Your task to perform on an android device: Go to location settings Image 0: 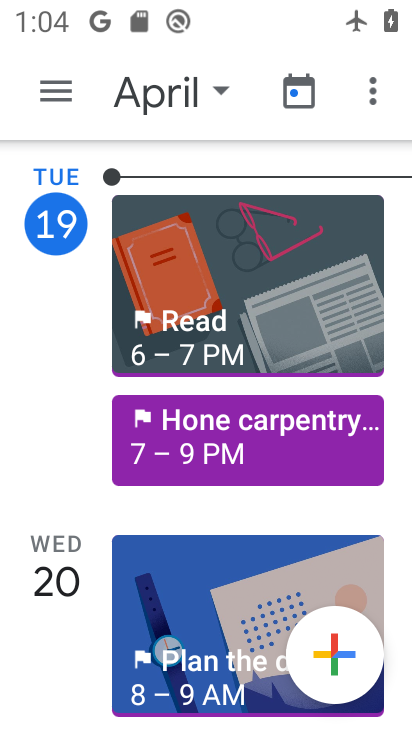
Step 0: press home button
Your task to perform on an android device: Go to location settings Image 1: 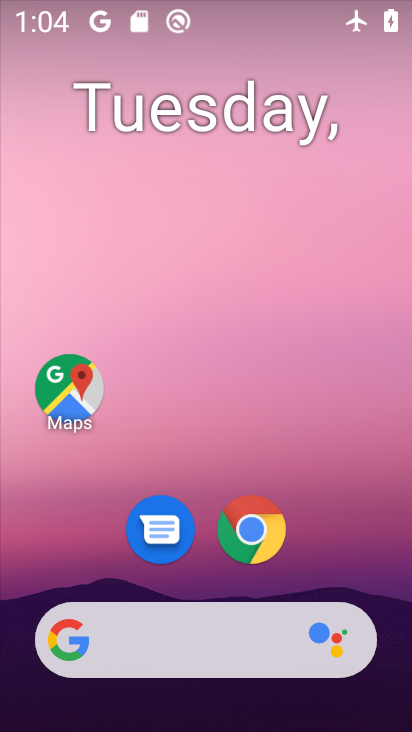
Step 1: drag from (392, 416) to (392, 181)
Your task to perform on an android device: Go to location settings Image 2: 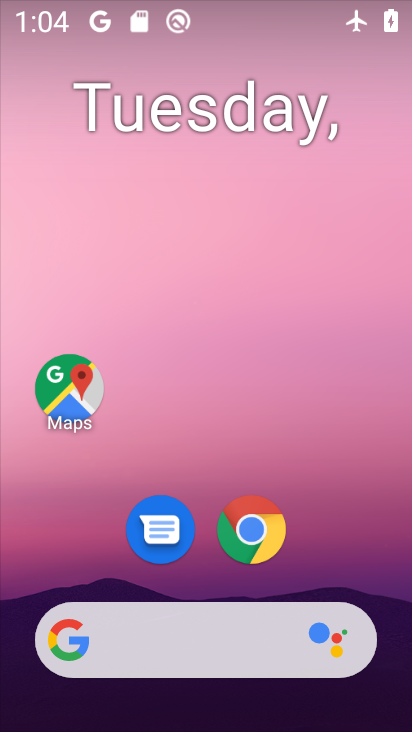
Step 2: drag from (375, 449) to (367, 57)
Your task to perform on an android device: Go to location settings Image 3: 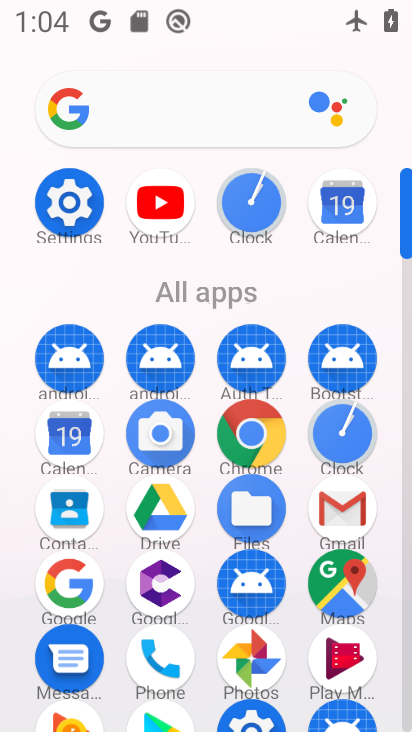
Step 3: click (58, 189)
Your task to perform on an android device: Go to location settings Image 4: 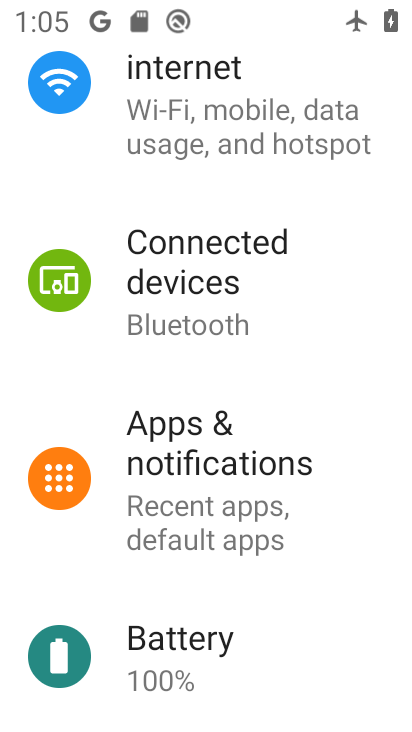
Step 4: drag from (337, 559) to (374, 212)
Your task to perform on an android device: Go to location settings Image 5: 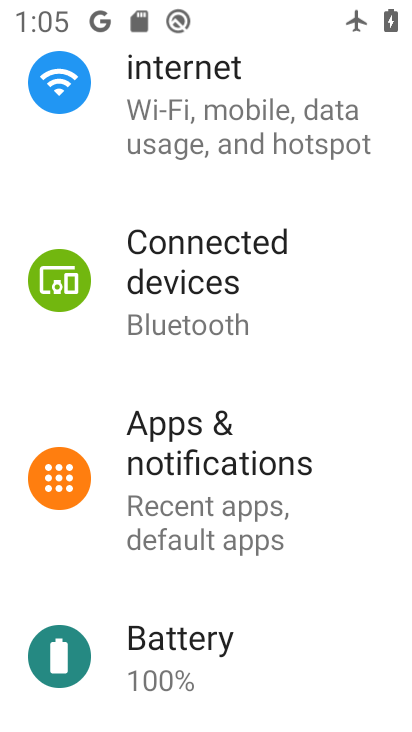
Step 5: drag from (329, 482) to (331, 274)
Your task to perform on an android device: Go to location settings Image 6: 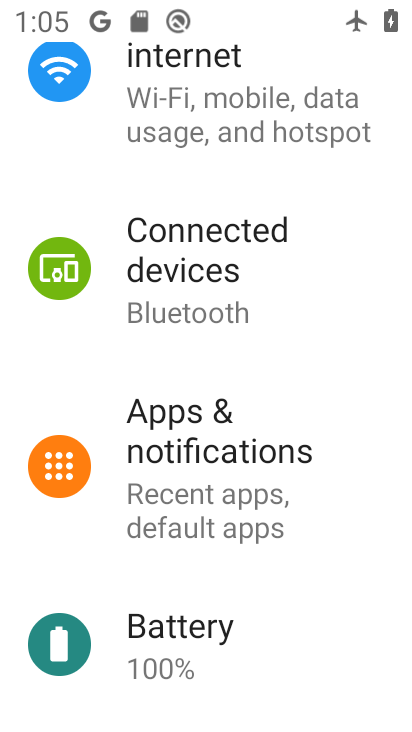
Step 6: drag from (342, 653) to (360, 209)
Your task to perform on an android device: Go to location settings Image 7: 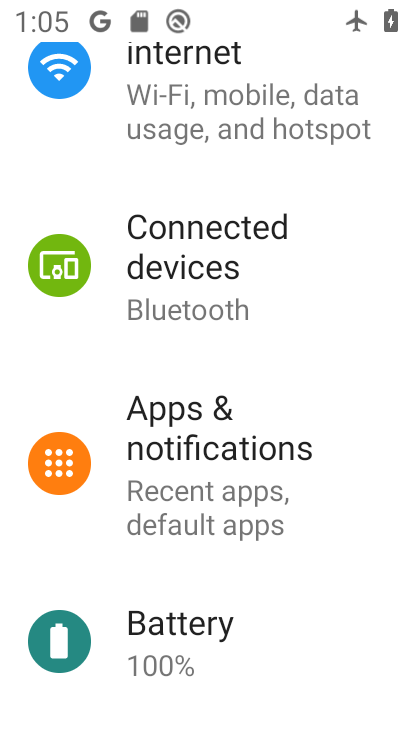
Step 7: drag from (358, 657) to (347, 272)
Your task to perform on an android device: Go to location settings Image 8: 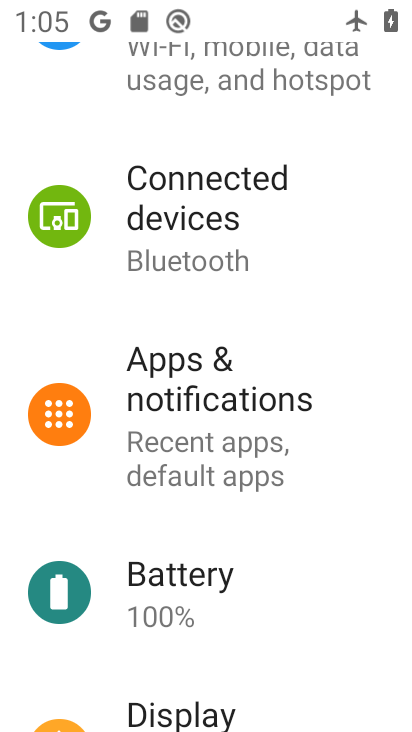
Step 8: drag from (346, 476) to (360, 235)
Your task to perform on an android device: Go to location settings Image 9: 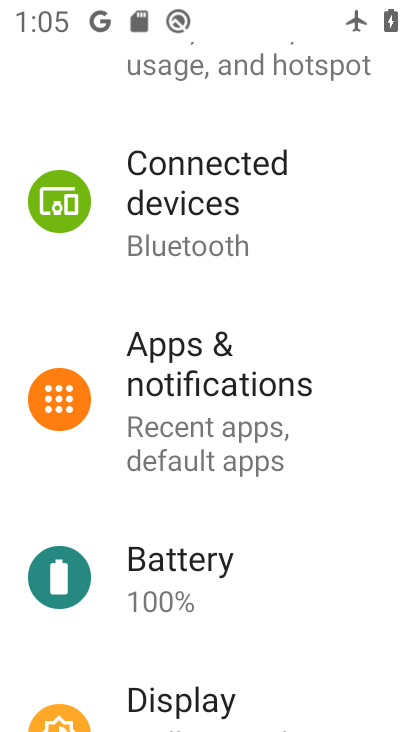
Step 9: drag from (350, 655) to (361, 244)
Your task to perform on an android device: Go to location settings Image 10: 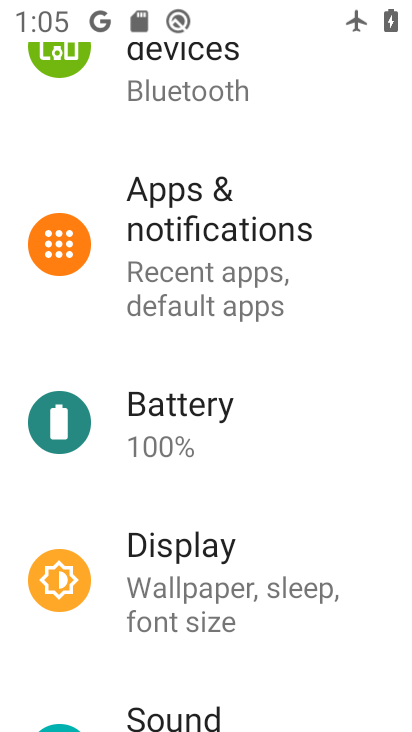
Step 10: drag from (323, 680) to (321, 237)
Your task to perform on an android device: Go to location settings Image 11: 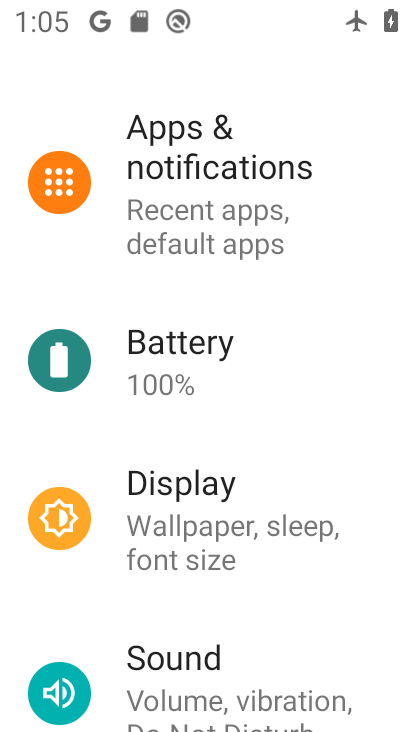
Step 11: click (344, 283)
Your task to perform on an android device: Go to location settings Image 12: 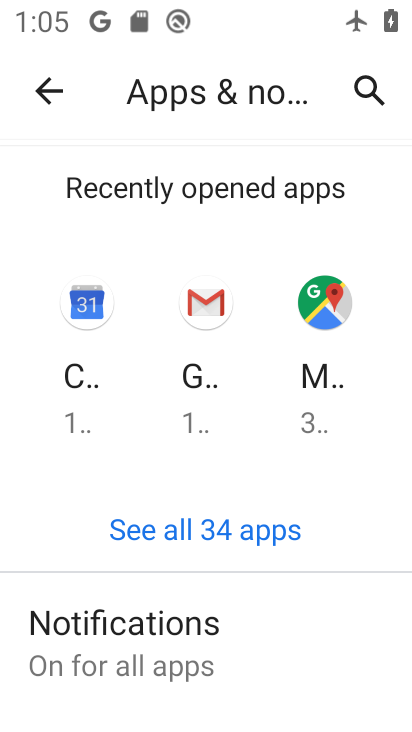
Step 12: click (35, 89)
Your task to perform on an android device: Go to location settings Image 13: 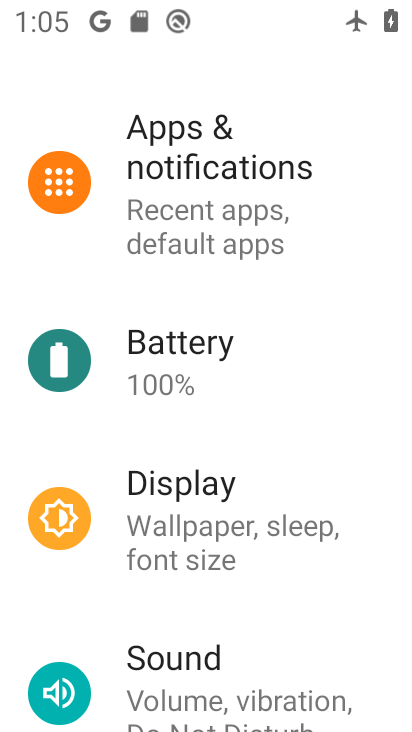
Step 13: click (410, 161)
Your task to perform on an android device: Go to location settings Image 14: 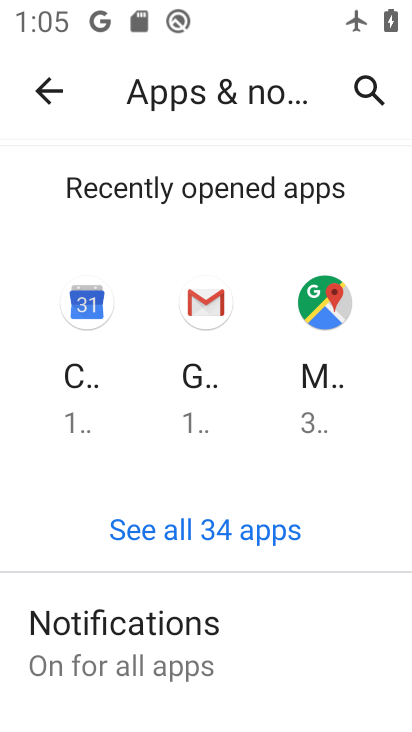
Step 14: click (44, 89)
Your task to perform on an android device: Go to location settings Image 15: 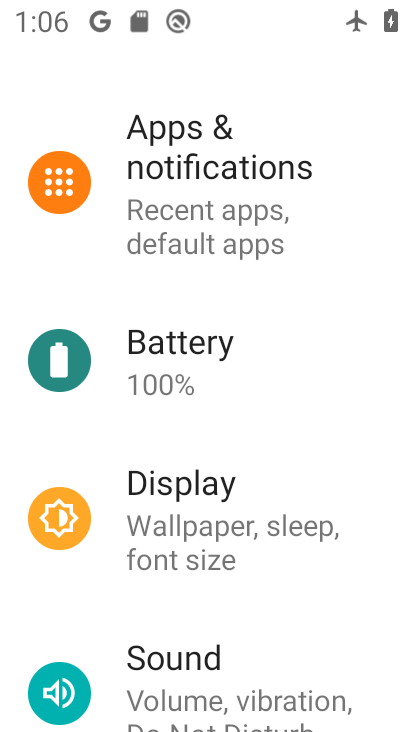
Step 15: drag from (305, 581) to (296, 92)
Your task to perform on an android device: Go to location settings Image 16: 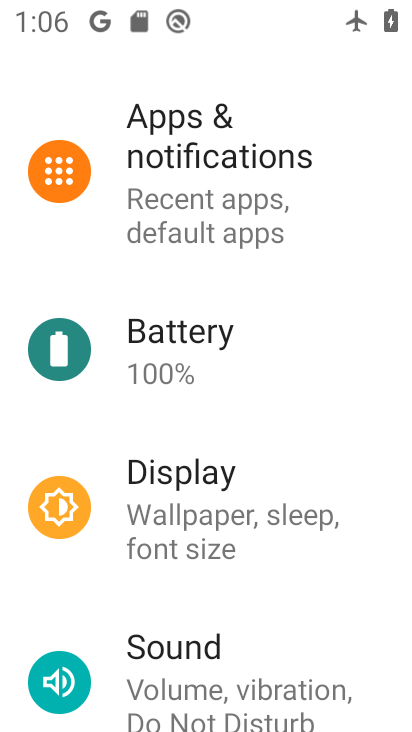
Step 16: drag from (354, 353) to (346, 249)
Your task to perform on an android device: Go to location settings Image 17: 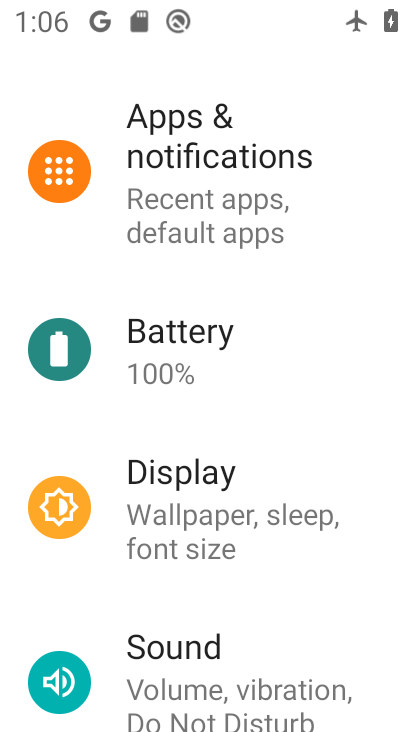
Step 17: drag from (322, 426) to (277, 163)
Your task to perform on an android device: Go to location settings Image 18: 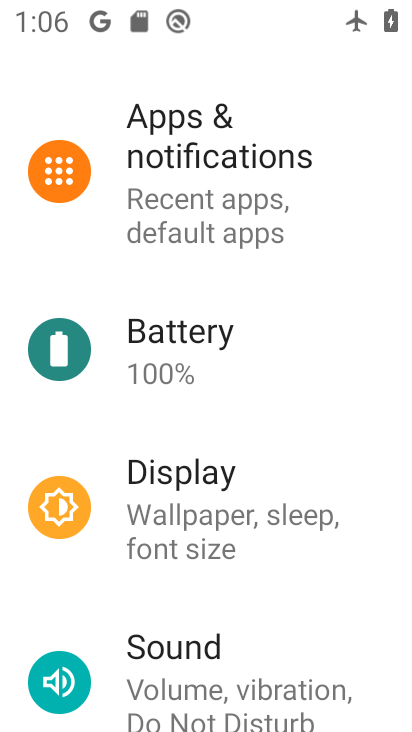
Step 18: drag from (364, 684) to (323, 146)
Your task to perform on an android device: Go to location settings Image 19: 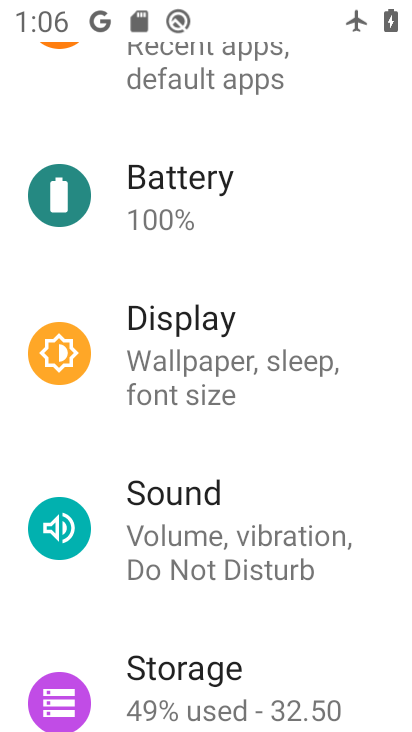
Step 19: drag from (355, 535) to (335, 150)
Your task to perform on an android device: Go to location settings Image 20: 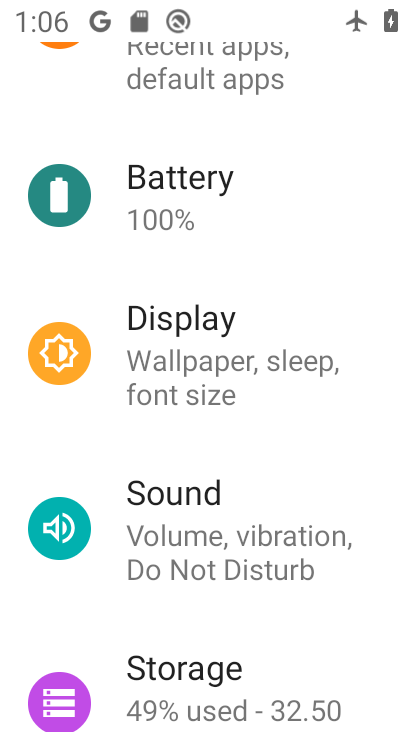
Step 20: drag from (313, 526) to (271, 174)
Your task to perform on an android device: Go to location settings Image 21: 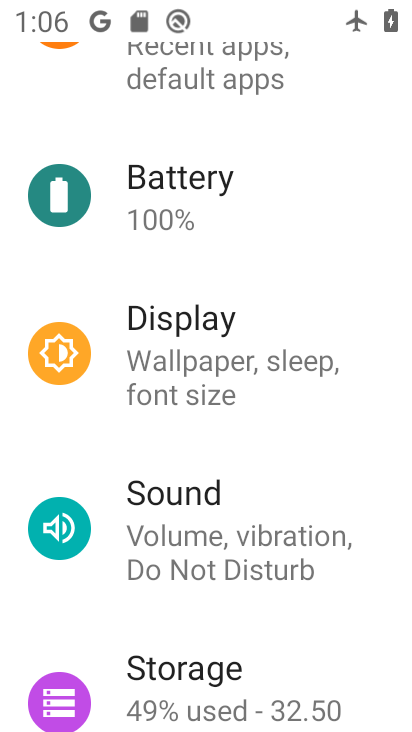
Step 21: drag from (345, 658) to (353, 84)
Your task to perform on an android device: Go to location settings Image 22: 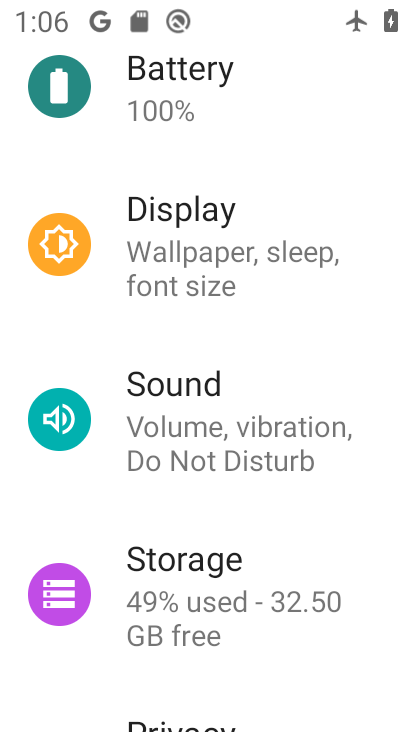
Step 22: drag from (358, 648) to (320, 172)
Your task to perform on an android device: Go to location settings Image 23: 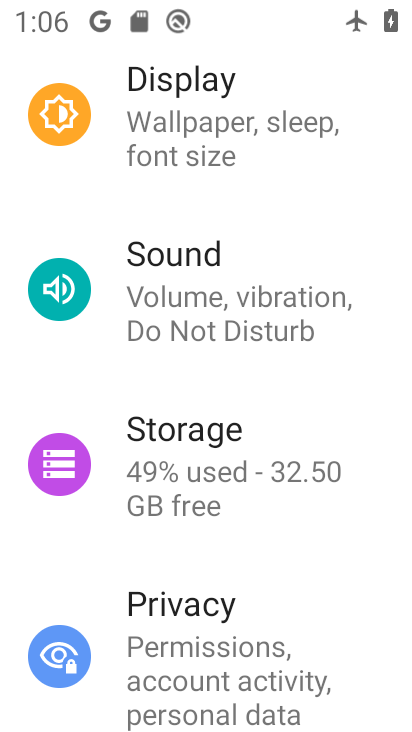
Step 23: drag from (333, 678) to (266, 202)
Your task to perform on an android device: Go to location settings Image 24: 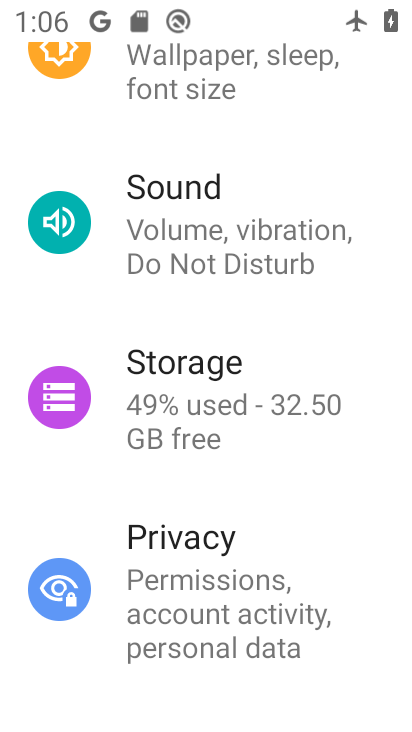
Step 24: drag from (347, 641) to (341, 195)
Your task to perform on an android device: Go to location settings Image 25: 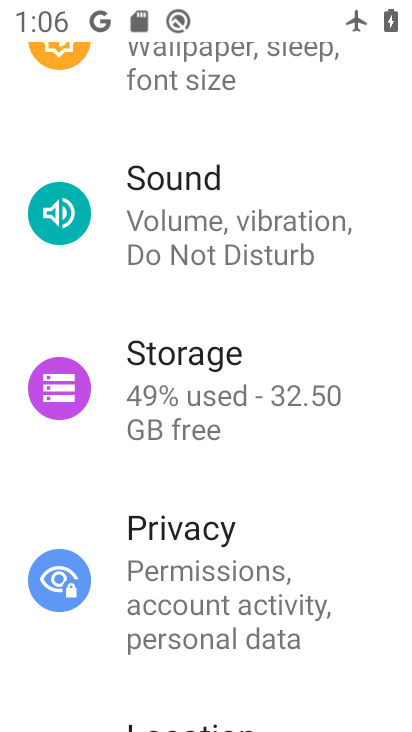
Step 25: drag from (341, 604) to (346, 168)
Your task to perform on an android device: Go to location settings Image 26: 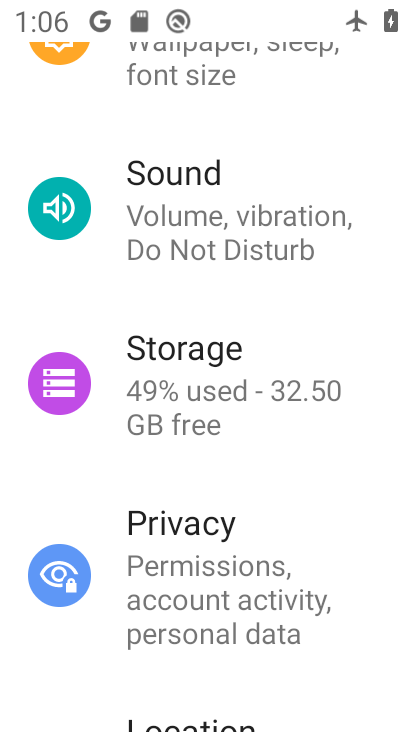
Step 26: drag from (353, 653) to (344, 235)
Your task to perform on an android device: Go to location settings Image 27: 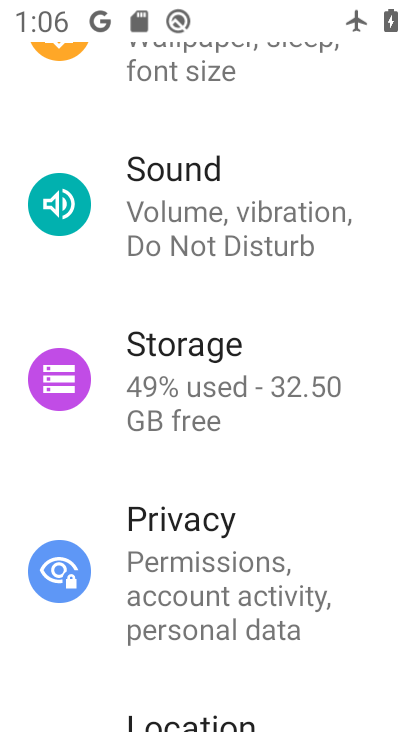
Step 27: drag from (308, 663) to (293, 228)
Your task to perform on an android device: Go to location settings Image 28: 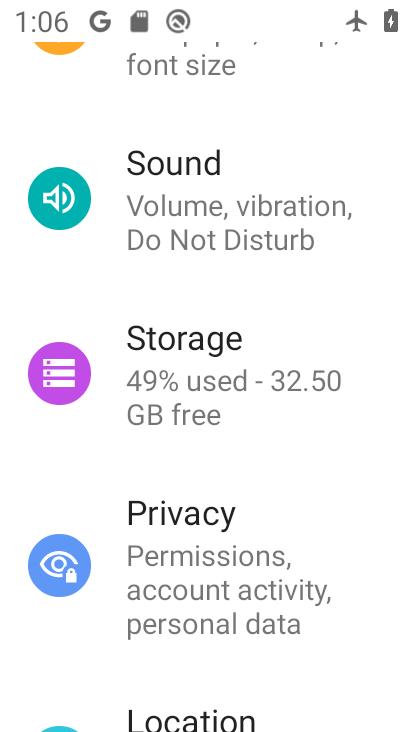
Step 28: click (197, 718)
Your task to perform on an android device: Go to location settings Image 29: 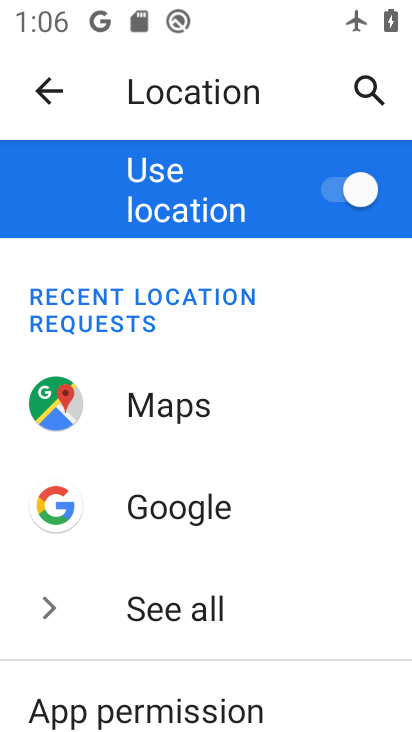
Step 29: drag from (358, 667) to (242, 252)
Your task to perform on an android device: Go to location settings Image 30: 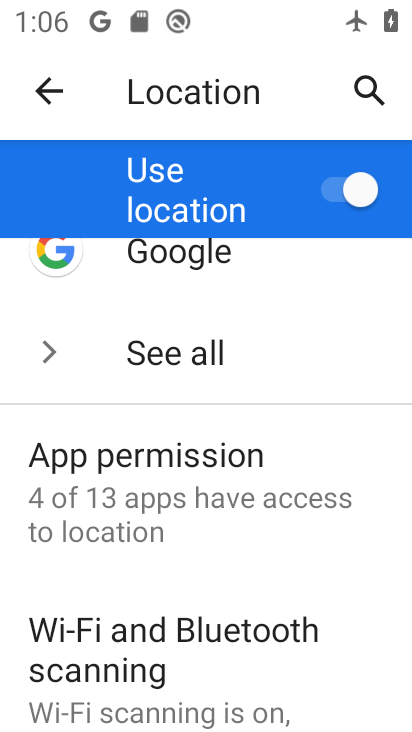
Step 30: drag from (333, 634) to (313, 377)
Your task to perform on an android device: Go to location settings Image 31: 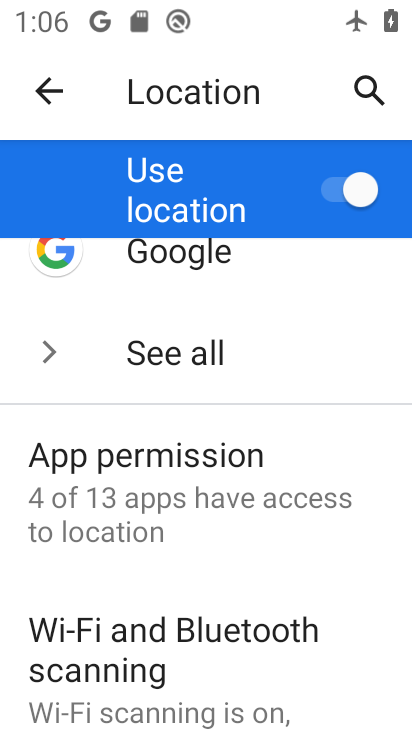
Step 31: drag from (393, 661) to (335, 267)
Your task to perform on an android device: Go to location settings Image 32: 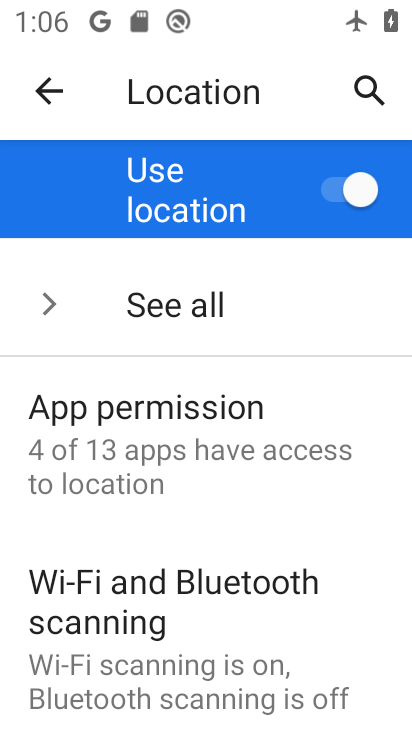
Step 32: drag from (360, 655) to (331, 316)
Your task to perform on an android device: Go to location settings Image 33: 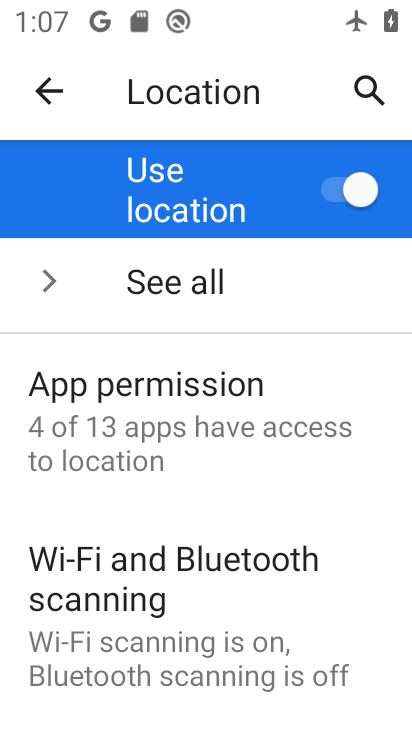
Step 33: drag from (365, 620) to (348, 372)
Your task to perform on an android device: Go to location settings Image 34: 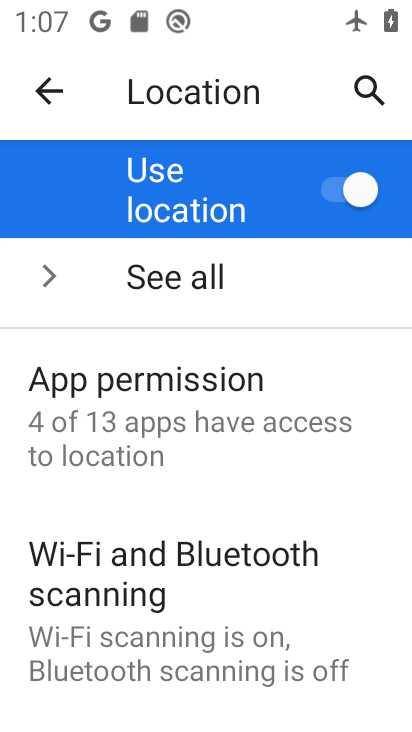
Step 34: drag from (342, 574) to (328, 322)
Your task to perform on an android device: Go to location settings Image 35: 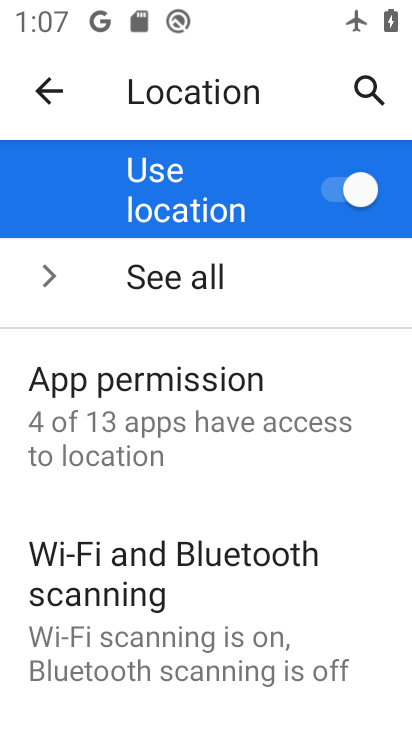
Step 35: drag from (313, 323) to (299, 281)
Your task to perform on an android device: Go to location settings Image 36: 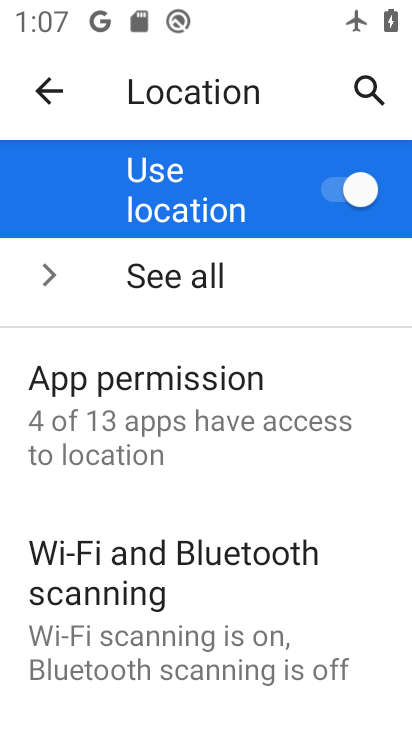
Step 36: drag from (378, 607) to (327, 280)
Your task to perform on an android device: Go to location settings Image 37: 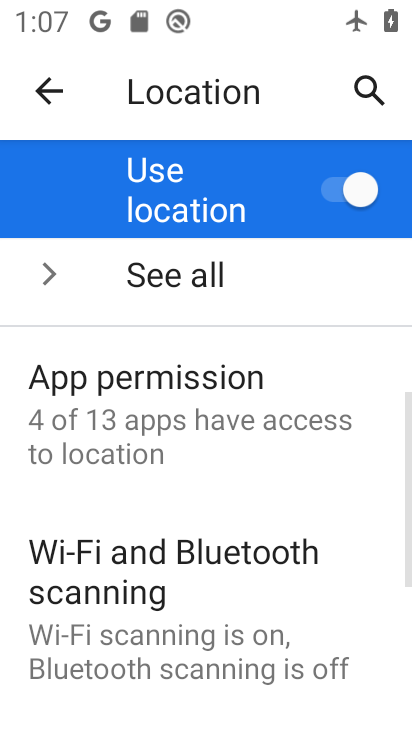
Step 37: drag from (336, 514) to (290, 320)
Your task to perform on an android device: Go to location settings Image 38: 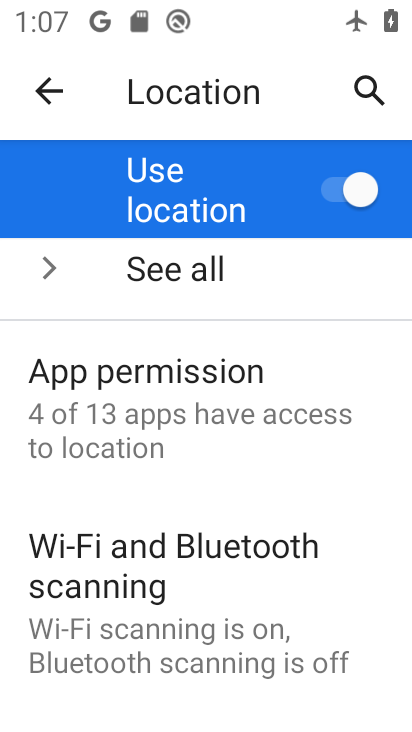
Step 38: drag from (377, 645) to (338, 279)
Your task to perform on an android device: Go to location settings Image 39: 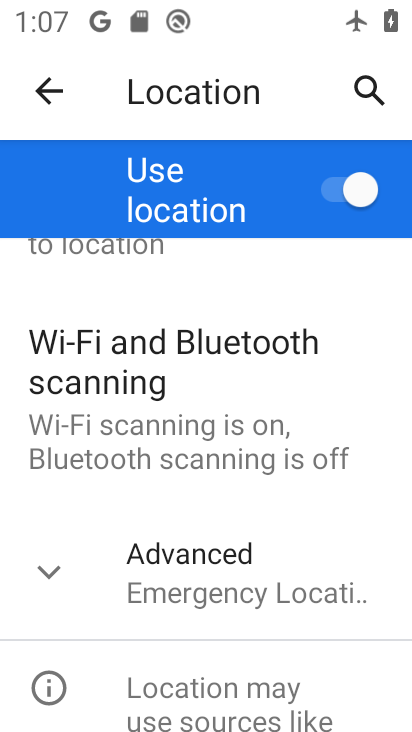
Step 39: drag from (367, 635) to (321, 308)
Your task to perform on an android device: Go to location settings Image 40: 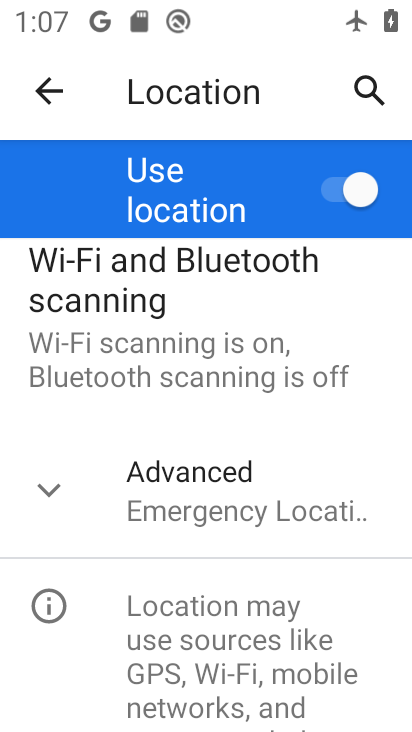
Step 40: click (55, 501)
Your task to perform on an android device: Go to location settings Image 41: 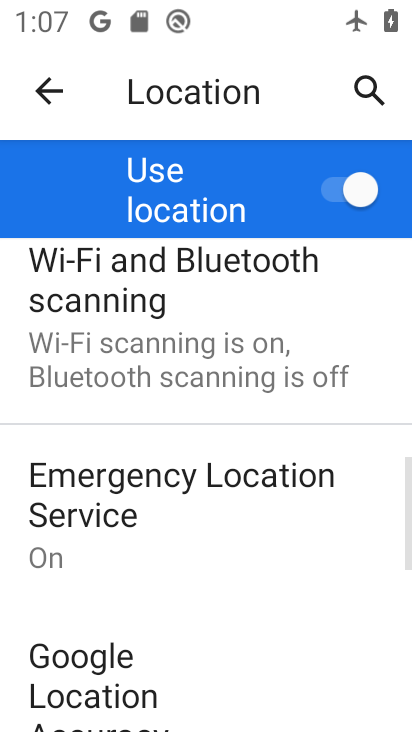
Step 41: task complete